Your task to perform on an android device: allow notifications from all sites in the chrome app Image 0: 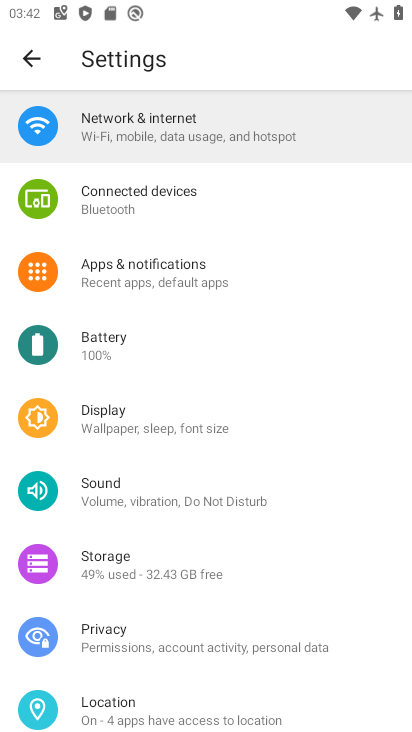
Step 0: press home button
Your task to perform on an android device: allow notifications from all sites in the chrome app Image 1: 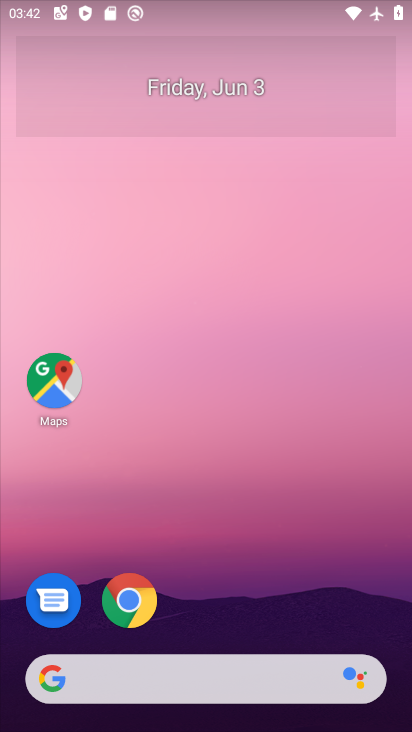
Step 1: click (130, 593)
Your task to perform on an android device: allow notifications from all sites in the chrome app Image 2: 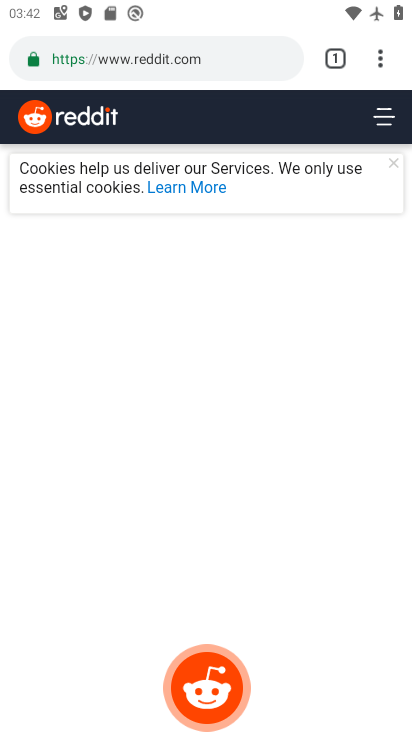
Step 2: click (384, 57)
Your task to perform on an android device: allow notifications from all sites in the chrome app Image 3: 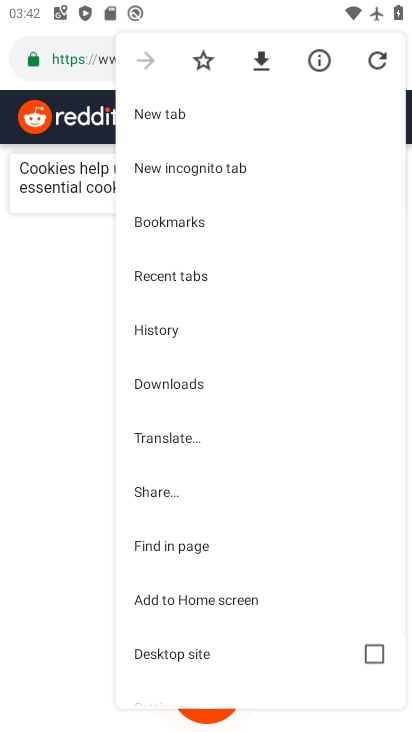
Step 3: drag from (208, 592) to (269, 375)
Your task to perform on an android device: allow notifications from all sites in the chrome app Image 4: 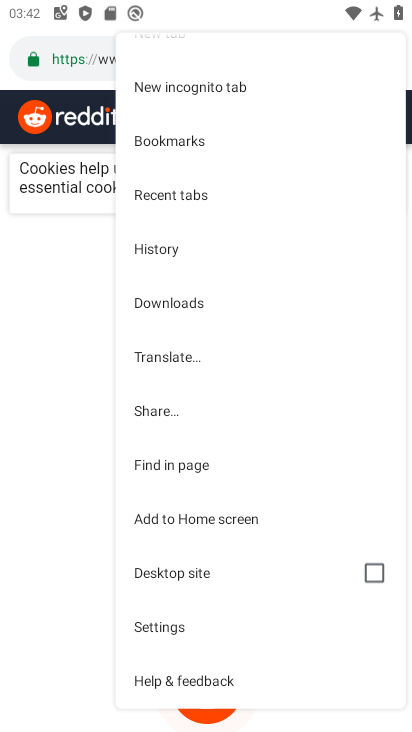
Step 4: click (165, 624)
Your task to perform on an android device: allow notifications from all sites in the chrome app Image 5: 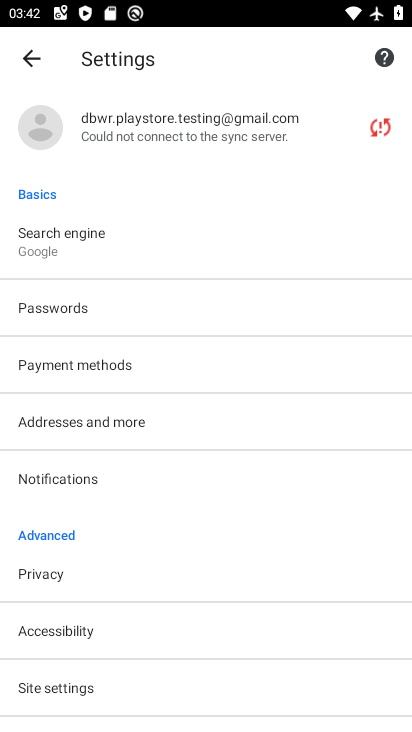
Step 5: click (87, 476)
Your task to perform on an android device: allow notifications from all sites in the chrome app Image 6: 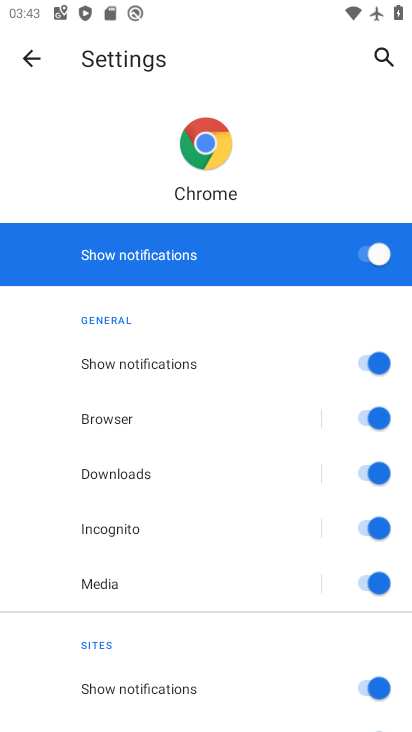
Step 6: task complete